Your task to perform on an android device: Open the map Image 0: 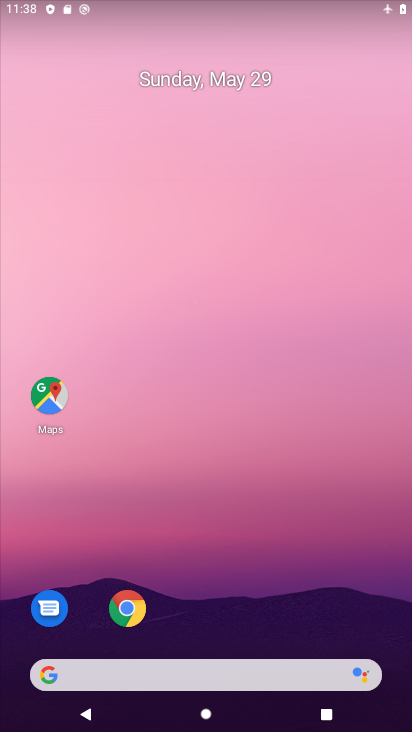
Step 0: drag from (233, 660) to (142, 80)
Your task to perform on an android device: Open the map Image 1: 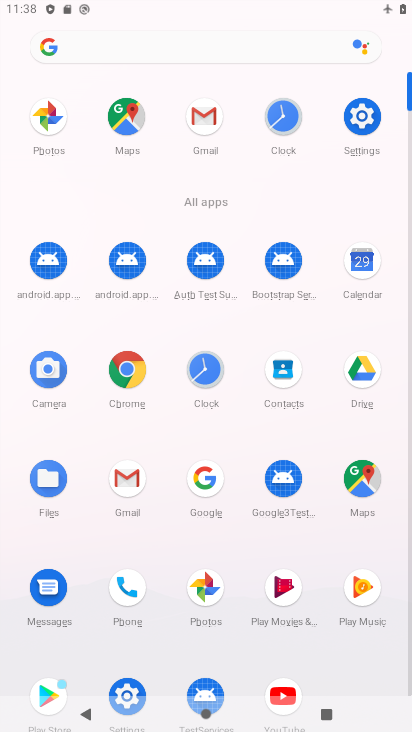
Step 1: click (358, 485)
Your task to perform on an android device: Open the map Image 2: 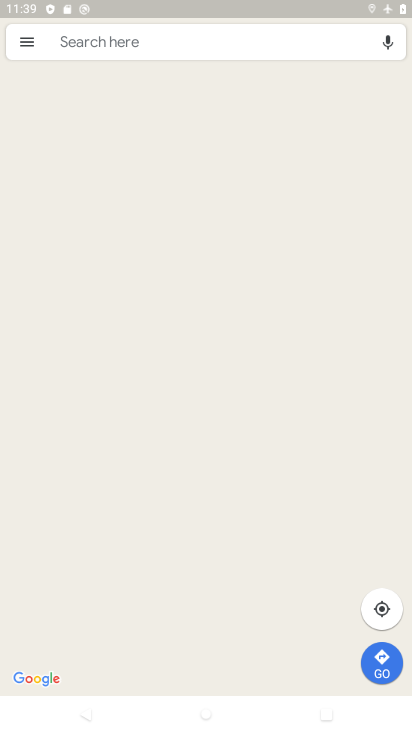
Step 2: task complete